Your task to perform on an android device: Do I have any events today? Image 0: 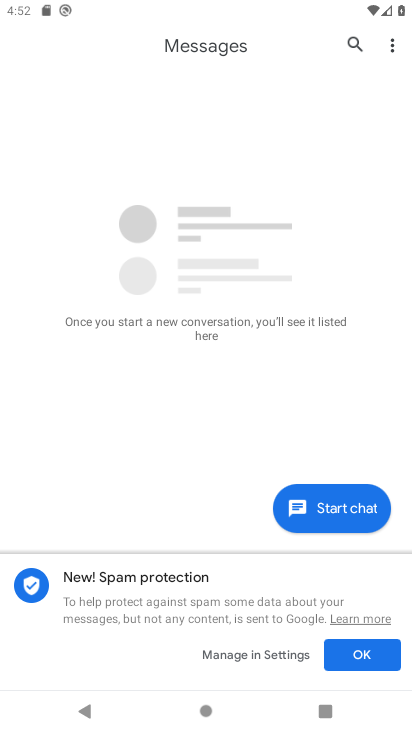
Step 0: press back button
Your task to perform on an android device: Do I have any events today? Image 1: 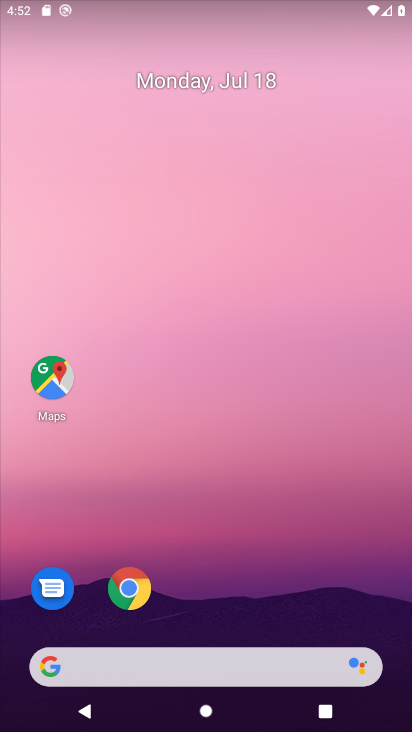
Step 1: drag from (284, 673) to (231, 0)
Your task to perform on an android device: Do I have any events today? Image 2: 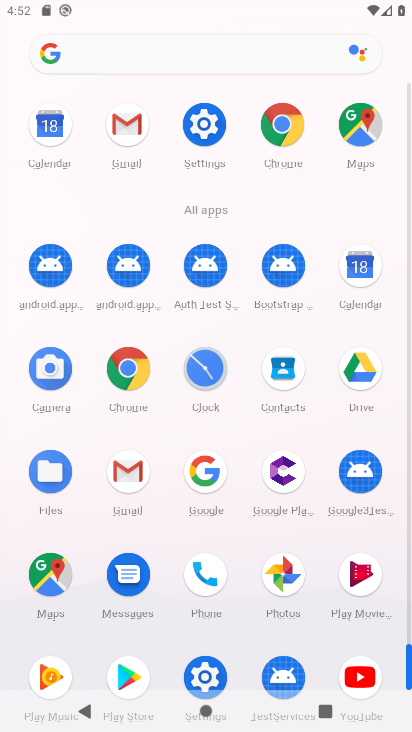
Step 2: click (364, 265)
Your task to perform on an android device: Do I have any events today? Image 3: 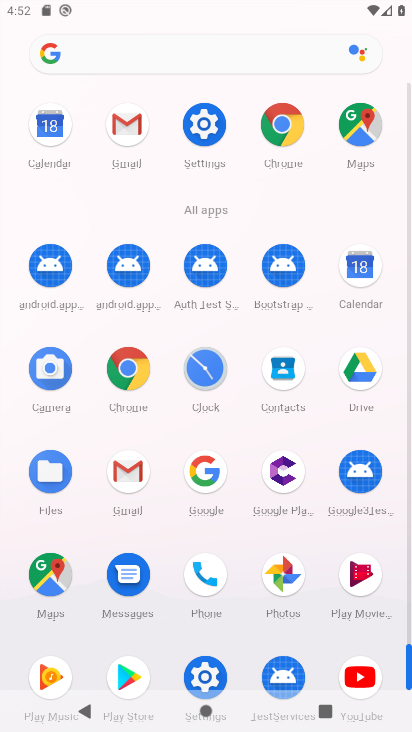
Step 3: click (364, 265)
Your task to perform on an android device: Do I have any events today? Image 4: 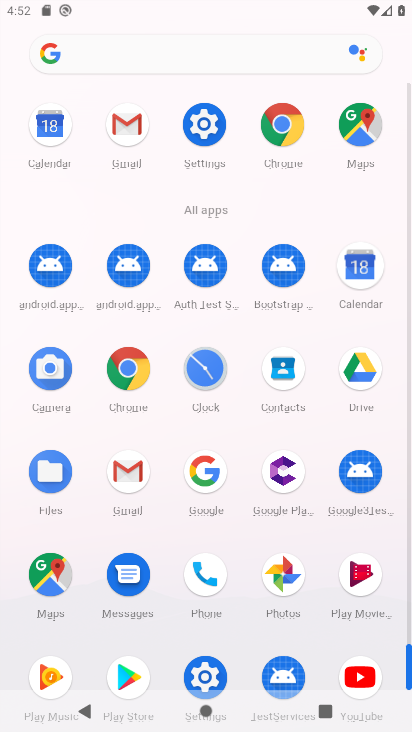
Step 4: click (368, 266)
Your task to perform on an android device: Do I have any events today? Image 5: 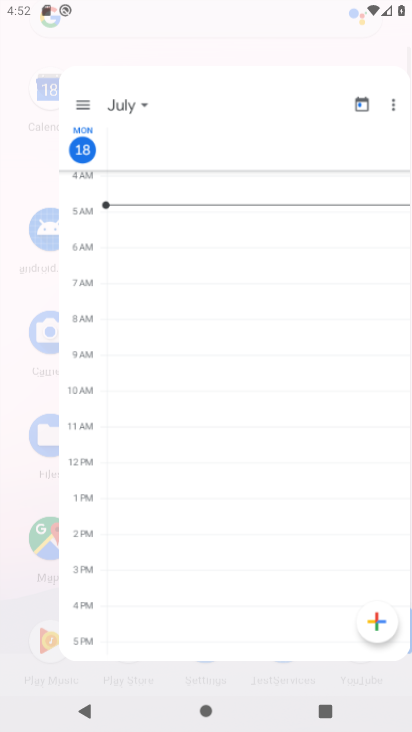
Step 5: click (368, 266)
Your task to perform on an android device: Do I have any events today? Image 6: 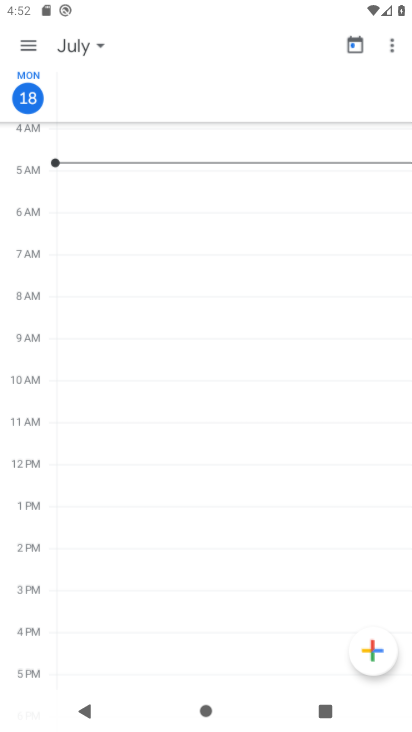
Step 6: click (367, 267)
Your task to perform on an android device: Do I have any events today? Image 7: 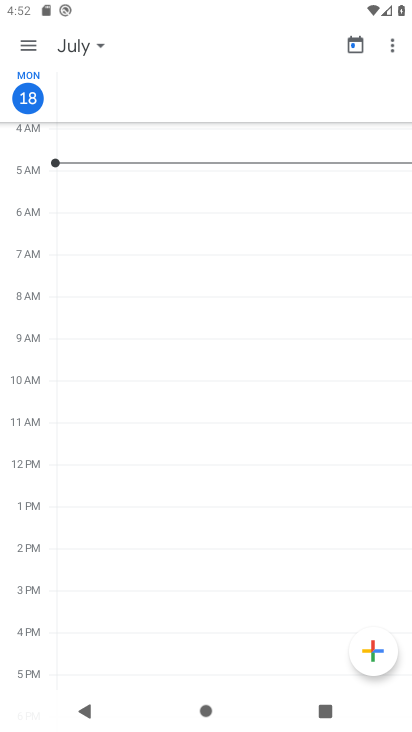
Step 7: click (358, 269)
Your task to perform on an android device: Do I have any events today? Image 8: 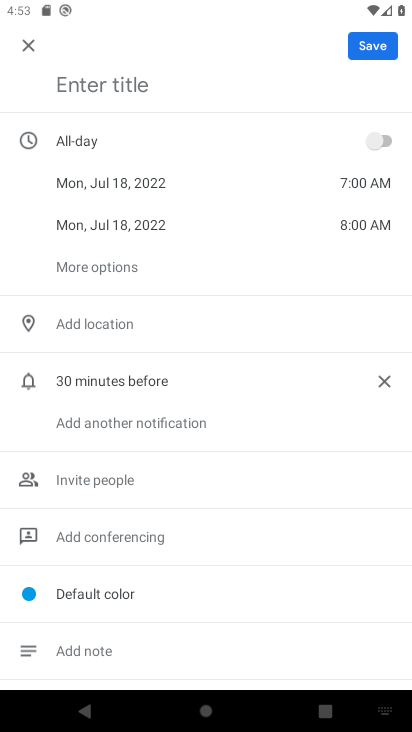
Step 8: click (18, 39)
Your task to perform on an android device: Do I have any events today? Image 9: 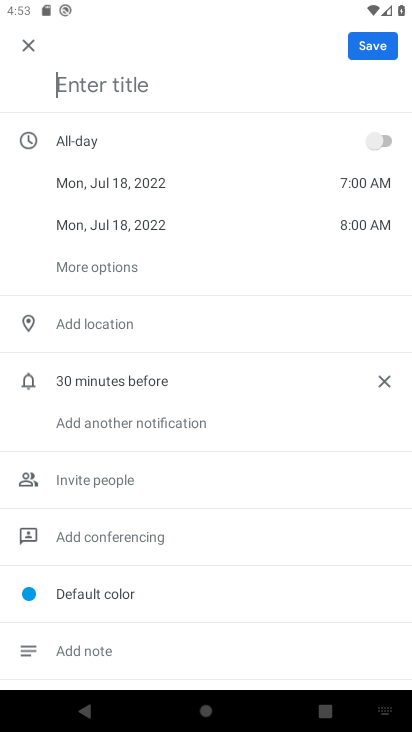
Step 9: click (21, 38)
Your task to perform on an android device: Do I have any events today? Image 10: 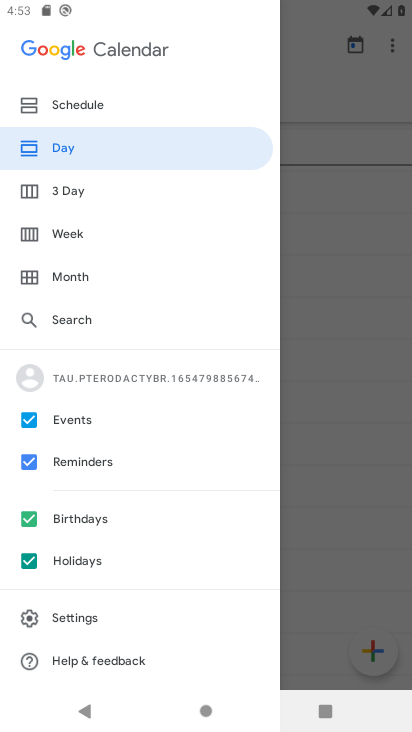
Step 10: click (83, 146)
Your task to perform on an android device: Do I have any events today? Image 11: 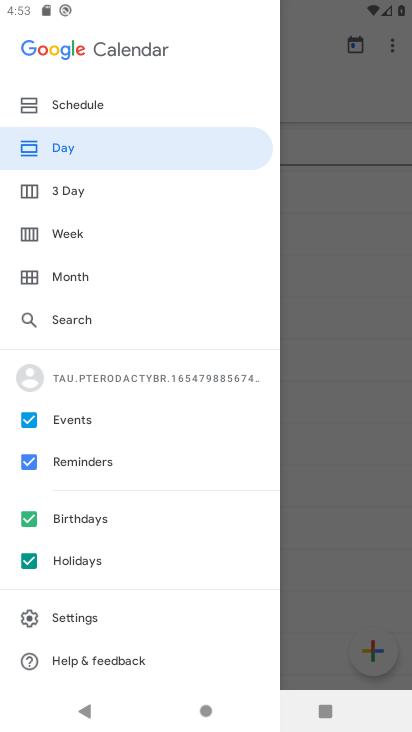
Step 11: click (83, 146)
Your task to perform on an android device: Do I have any events today? Image 12: 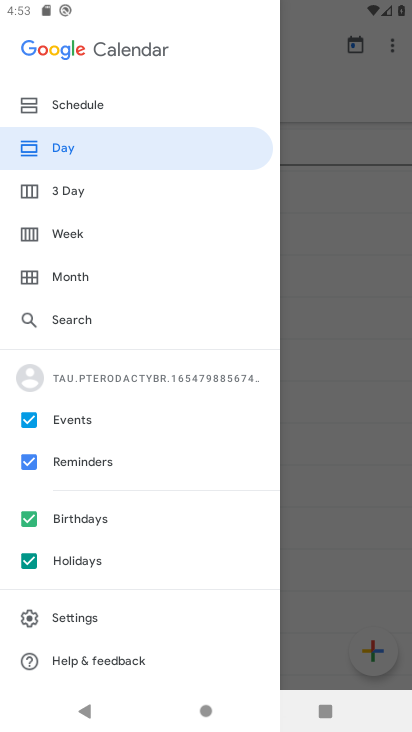
Step 12: click (94, 102)
Your task to perform on an android device: Do I have any events today? Image 13: 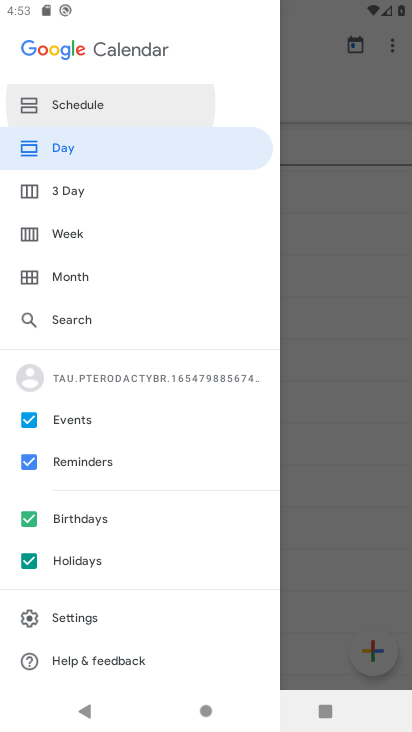
Step 13: click (94, 102)
Your task to perform on an android device: Do I have any events today? Image 14: 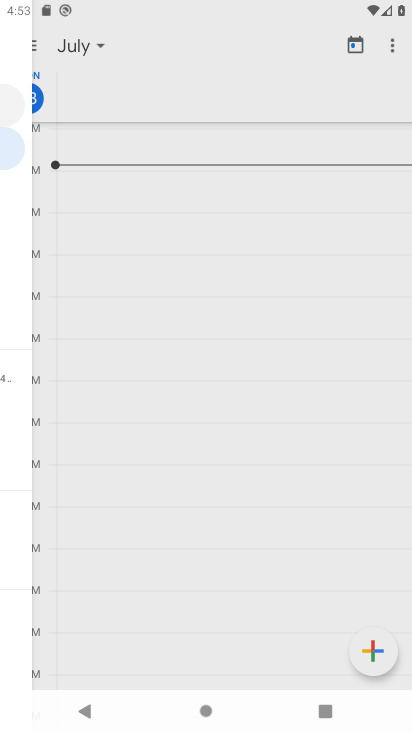
Step 14: click (94, 102)
Your task to perform on an android device: Do I have any events today? Image 15: 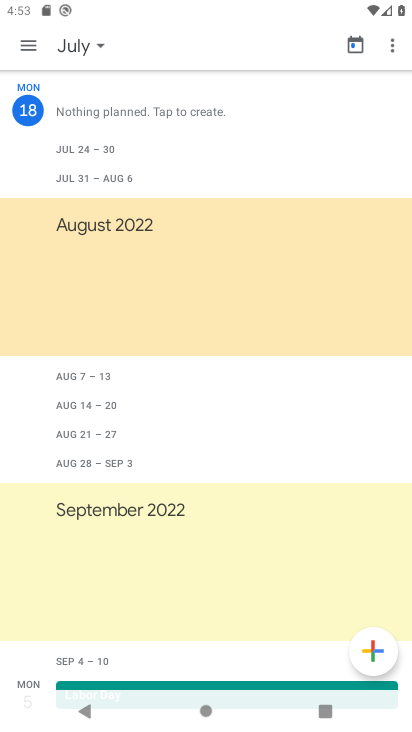
Step 15: drag from (100, 120) to (178, 426)
Your task to perform on an android device: Do I have any events today? Image 16: 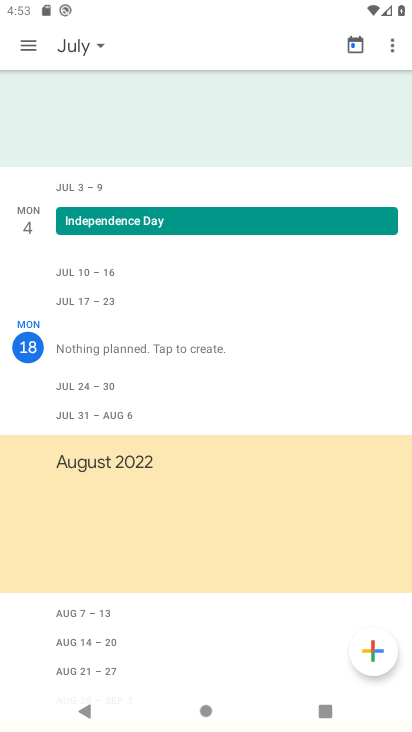
Step 16: drag from (109, 152) to (207, 560)
Your task to perform on an android device: Do I have any events today? Image 17: 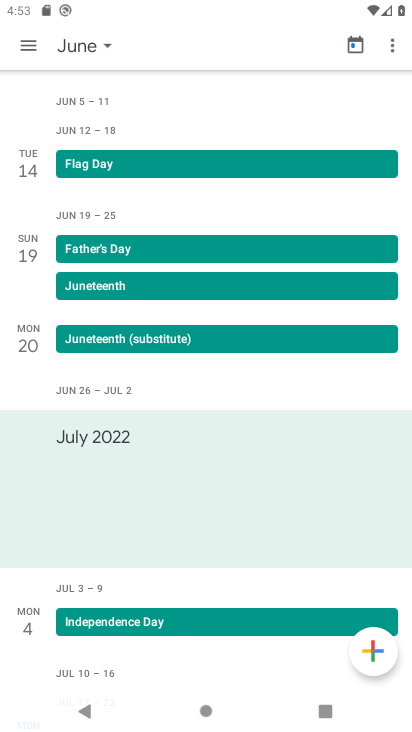
Step 17: drag from (119, 179) to (184, 524)
Your task to perform on an android device: Do I have any events today? Image 18: 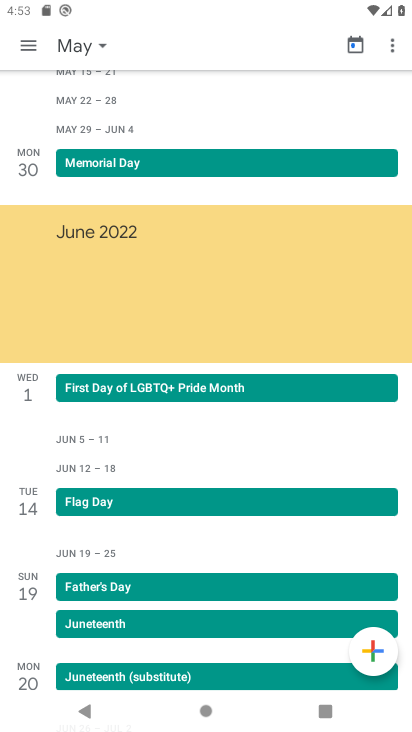
Step 18: drag from (118, 303) to (168, 487)
Your task to perform on an android device: Do I have any events today? Image 19: 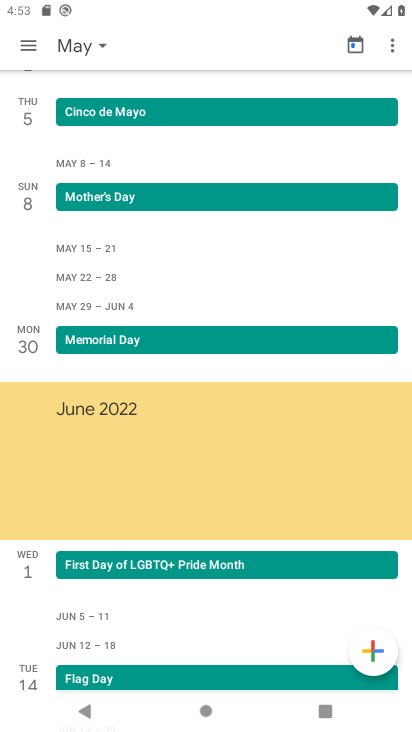
Step 19: drag from (74, 100) to (141, 397)
Your task to perform on an android device: Do I have any events today? Image 20: 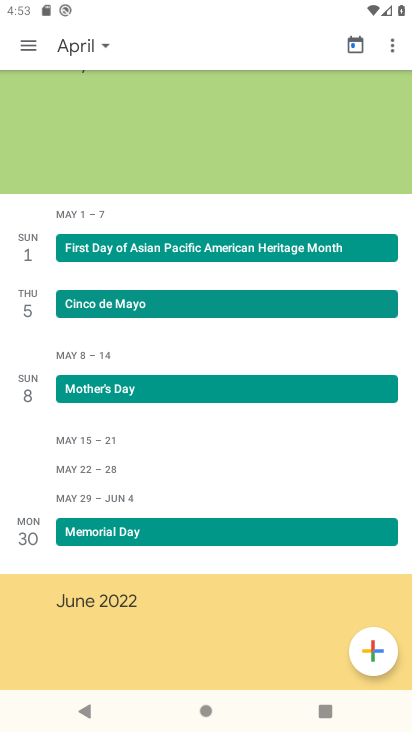
Step 20: drag from (114, 145) to (160, 551)
Your task to perform on an android device: Do I have any events today? Image 21: 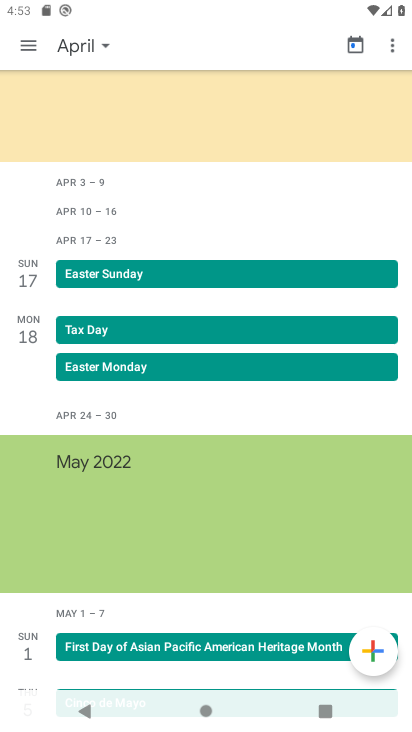
Step 21: drag from (87, 188) to (148, 550)
Your task to perform on an android device: Do I have any events today? Image 22: 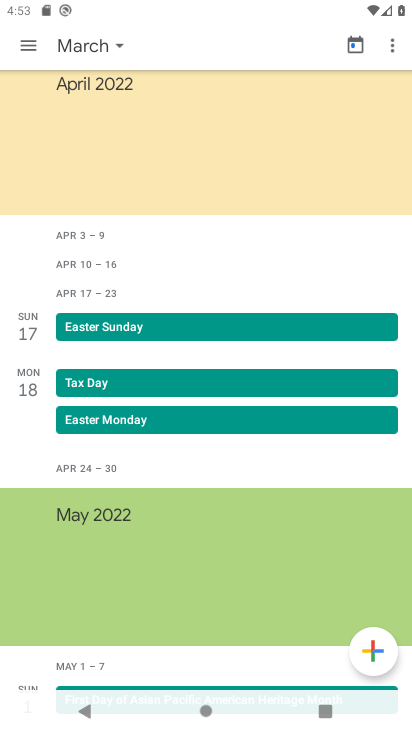
Step 22: drag from (83, 135) to (167, 577)
Your task to perform on an android device: Do I have any events today? Image 23: 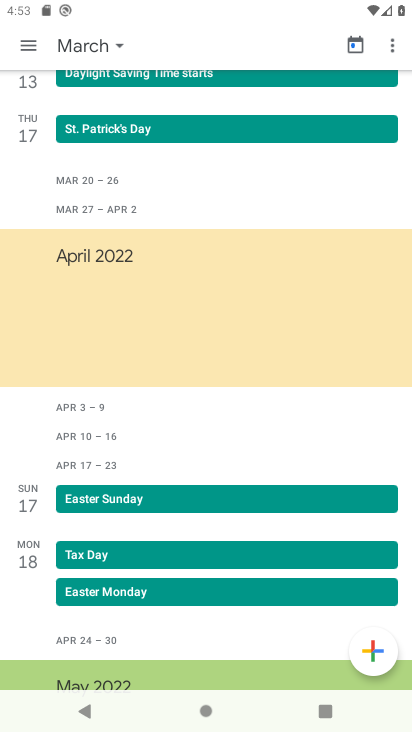
Step 23: drag from (131, 79) to (216, 608)
Your task to perform on an android device: Do I have any events today? Image 24: 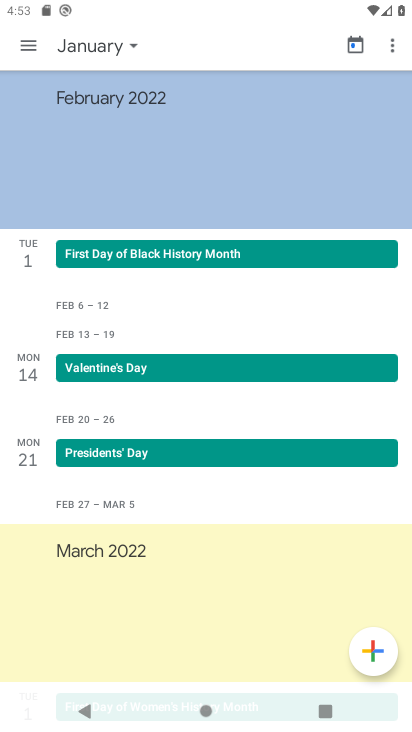
Step 24: drag from (126, 150) to (137, 679)
Your task to perform on an android device: Do I have any events today? Image 25: 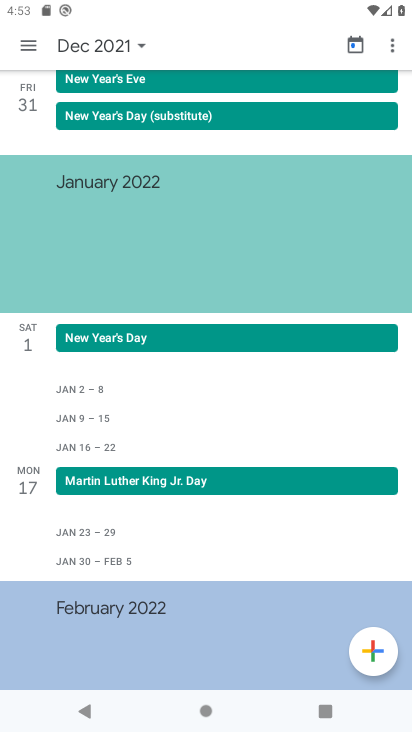
Step 25: drag from (62, 79) to (171, 592)
Your task to perform on an android device: Do I have any events today? Image 26: 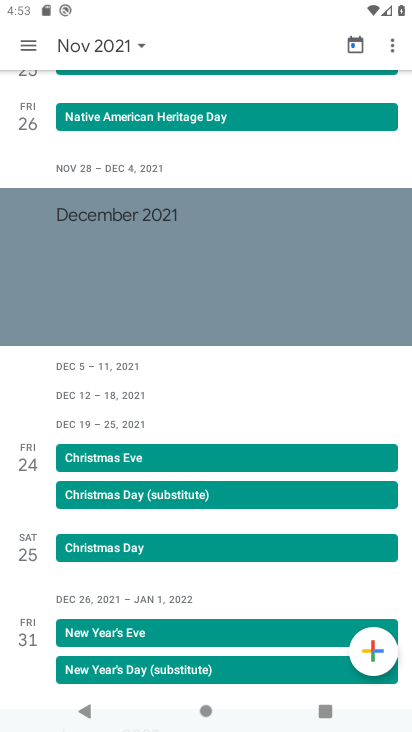
Step 26: drag from (83, 50) to (159, 443)
Your task to perform on an android device: Do I have any events today? Image 27: 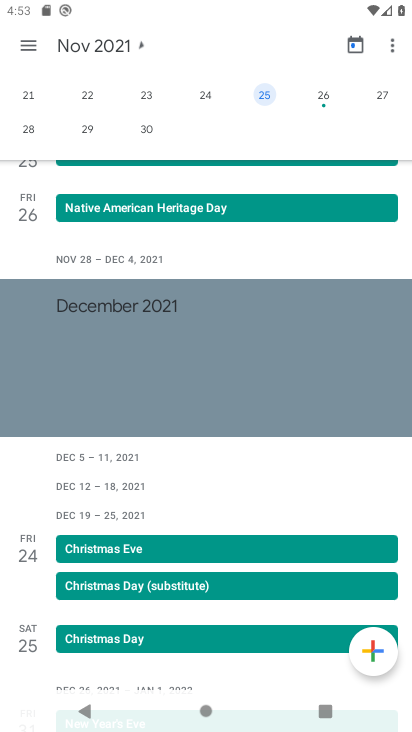
Step 27: drag from (81, 185) to (122, 577)
Your task to perform on an android device: Do I have any events today? Image 28: 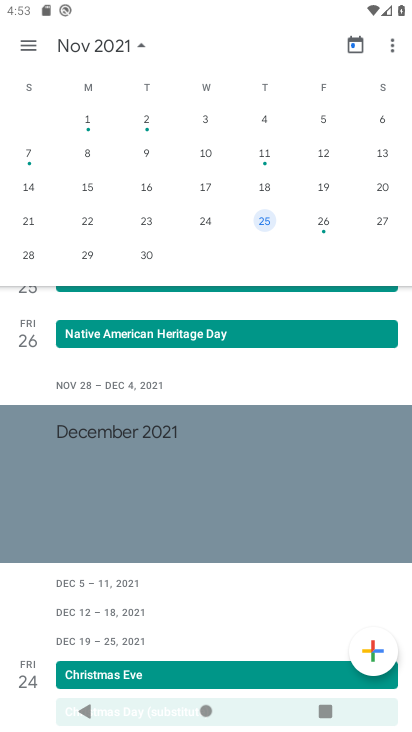
Step 28: drag from (53, 162) to (157, 544)
Your task to perform on an android device: Do I have any events today? Image 29: 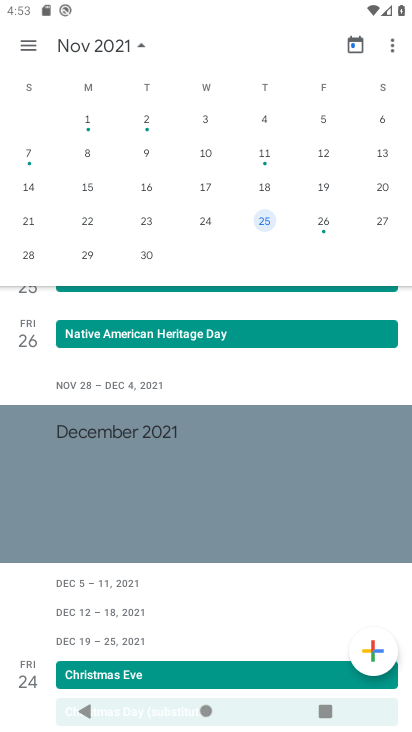
Step 29: drag from (190, 405) to (175, 27)
Your task to perform on an android device: Do I have any events today? Image 30: 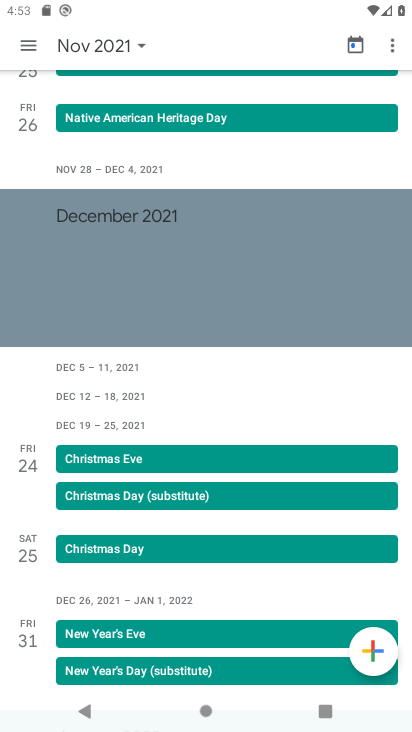
Step 30: drag from (253, 596) to (283, 106)
Your task to perform on an android device: Do I have any events today? Image 31: 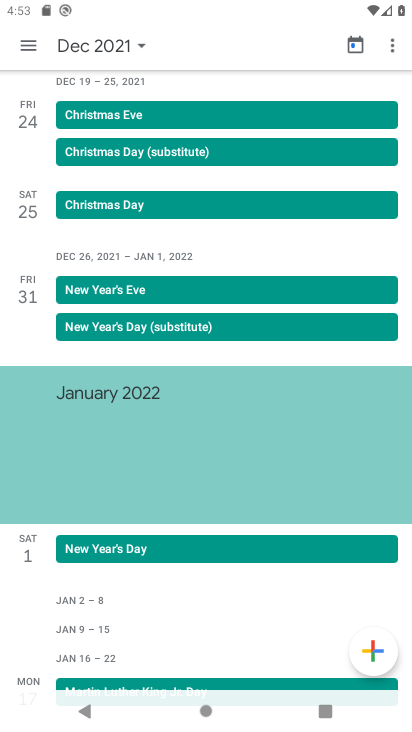
Step 31: drag from (226, 519) to (188, 137)
Your task to perform on an android device: Do I have any events today? Image 32: 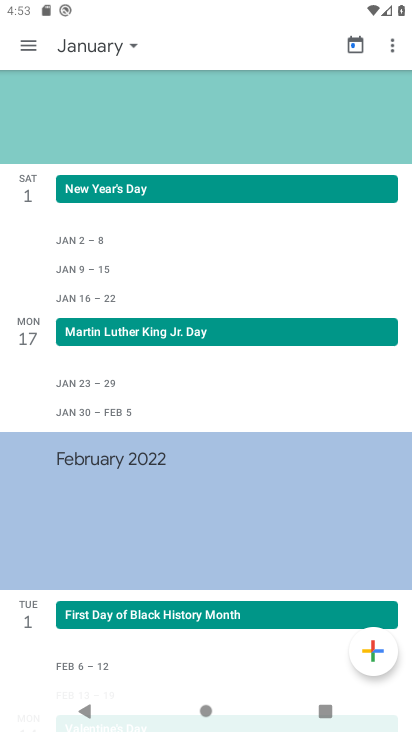
Step 32: drag from (175, 412) to (173, 214)
Your task to perform on an android device: Do I have any events today? Image 33: 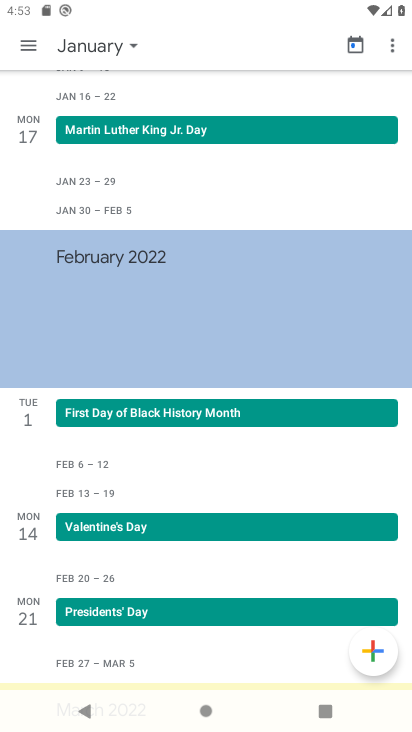
Step 33: drag from (177, 395) to (177, 138)
Your task to perform on an android device: Do I have any events today? Image 34: 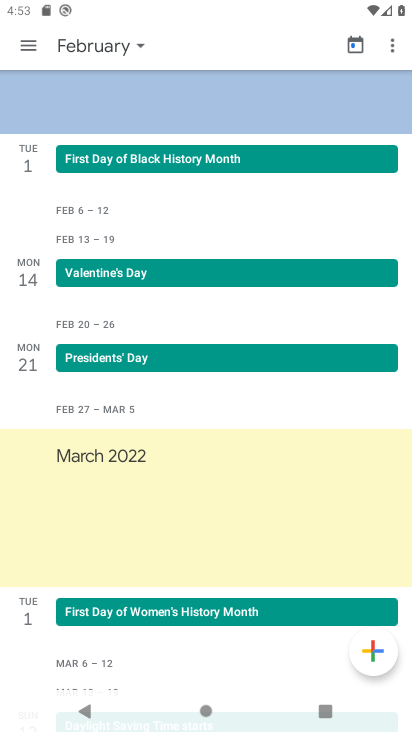
Step 34: drag from (176, 372) to (155, 90)
Your task to perform on an android device: Do I have any events today? Image 35: 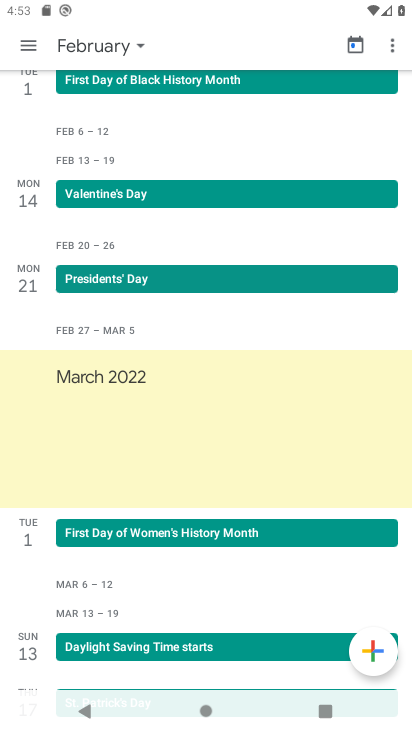
Step 35: drag from (148, 314) to (135, 81)
Your task to perform on an android device: Do I have any events today? Image 36: 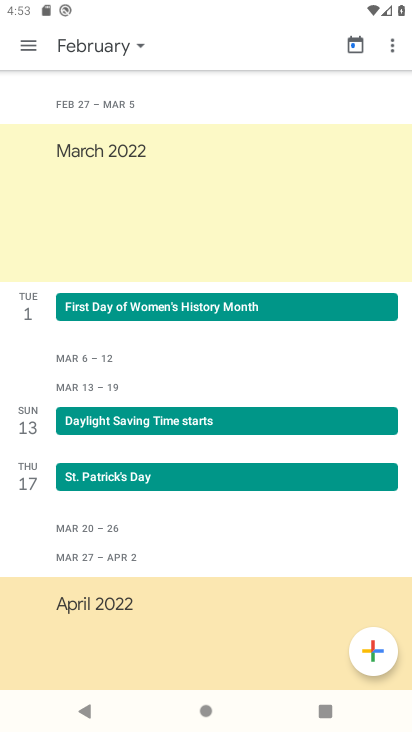
Step 36: drag from (172, 293) to (171, 88)
Your task to perform on an android device: Do I have any events today? Image 37: 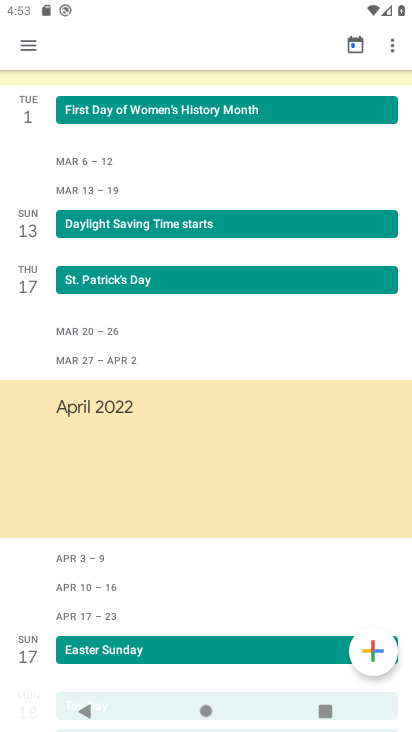
Step 37: drag from (171, 316) to (145, 81)
Your task to perform on an android device: Do I have any events today? Image 38: 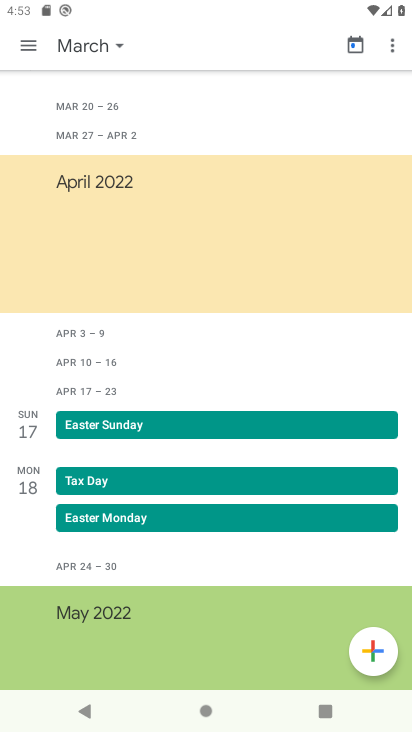
Step 38: drag from (177, 278) to (153, 93)
Your task to perform on an android device: Do I have any events today? Image 39: 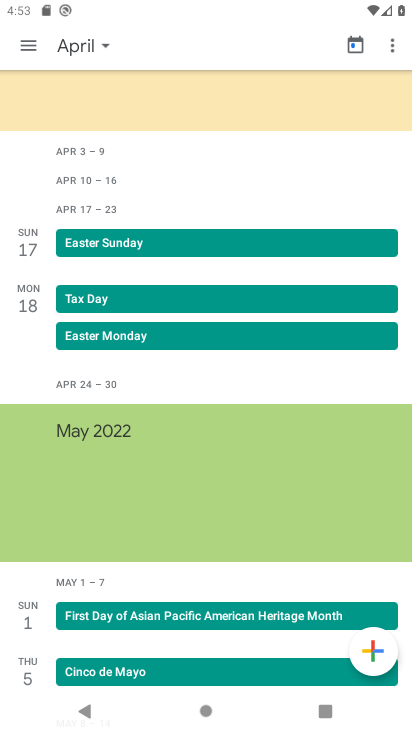
Step 39: drag from (177, 264) to (185, 72)
Your task to perform on an android device: Do I have any events today? Image 40: 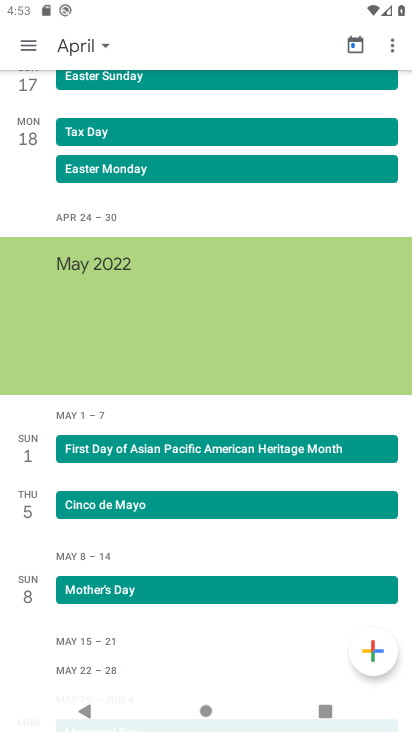
Step 40: drag from (204, 392) to (179, 137)
Your task to perform on an android device: Do I have any events today? Image 41: 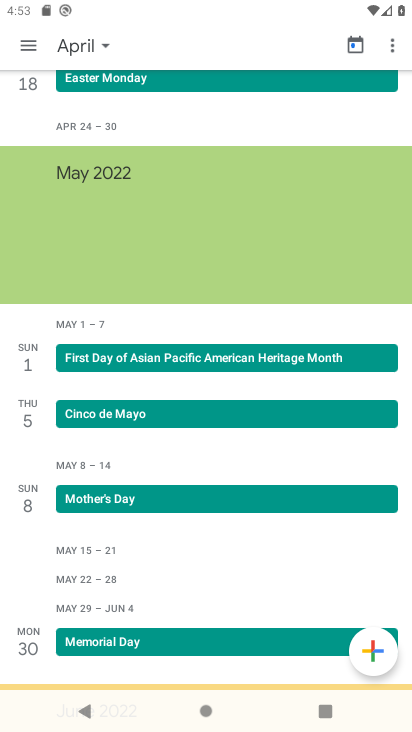
Step 41: drag from (192, 225) to (173, 88)
Your task to perform on an android device: Do I have any events today? Image 42: 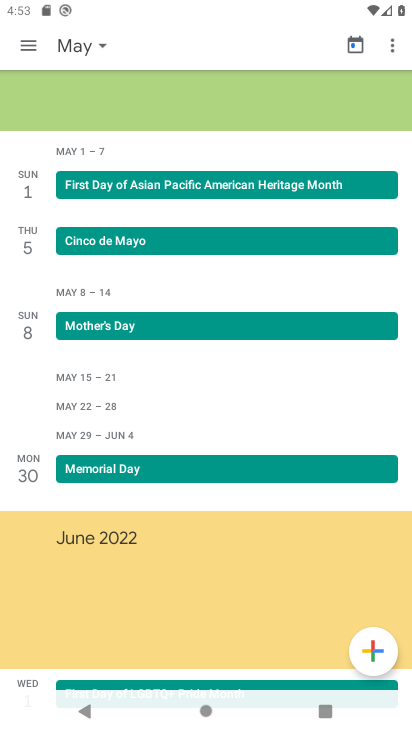
Step 42: drag from (160, 215) to (149, 133)
Your task to perform on an android device: Do I have any events today? Image 43: 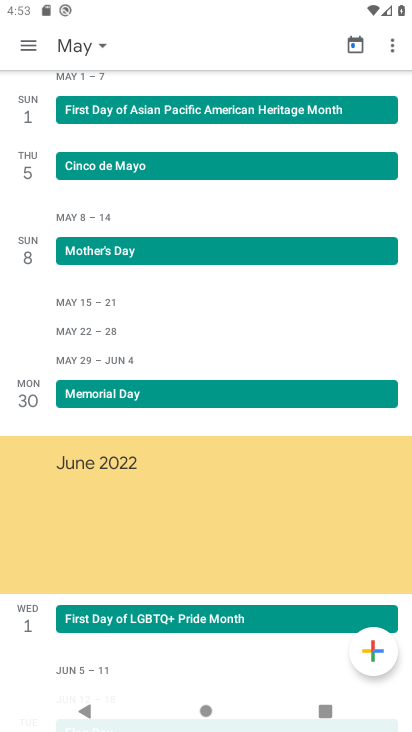
Step 43: drag from (152, 270) to (141, 100)
Your task to perform on an android device: Do I have any events today? Image 44: 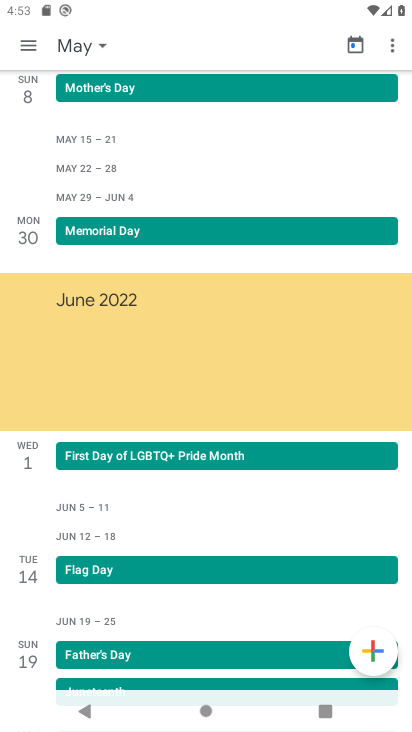
Step 44: drag from (162, 215) to (153, 108)
Your task to perform on an android device: Do I have any events today? Image 45: 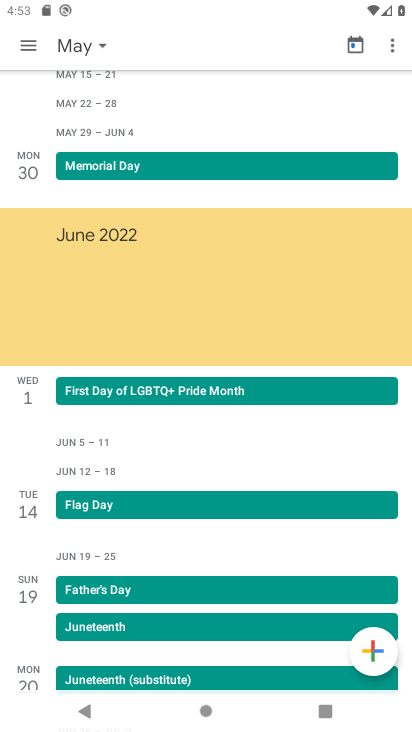
Step 45: drag from (166, 225) to (155, 92)
Your task to perform on an android device: Do I have any events today? Image 46: 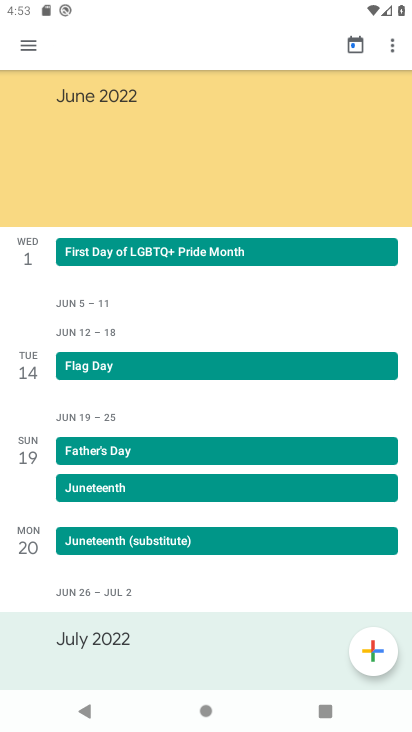
Step 46: drag from (155, 215) to (150, 121)
Your task to perform on an android device: Do I have any events today? Image 47: 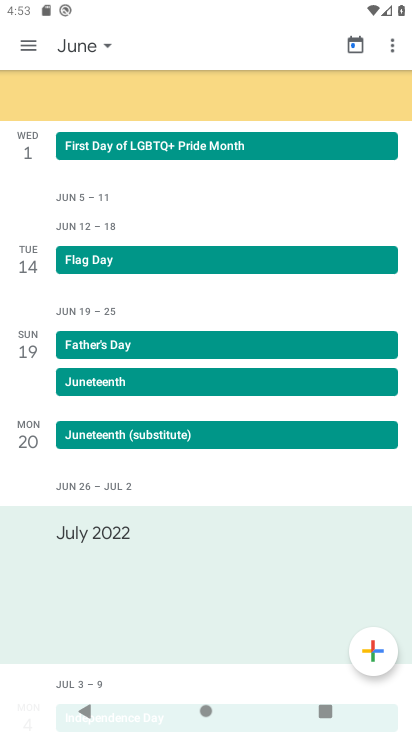
Step 47: drag from (162, 203) to (163, 128)
Your task to perform on an android device: Do I have any events today? Image 48: 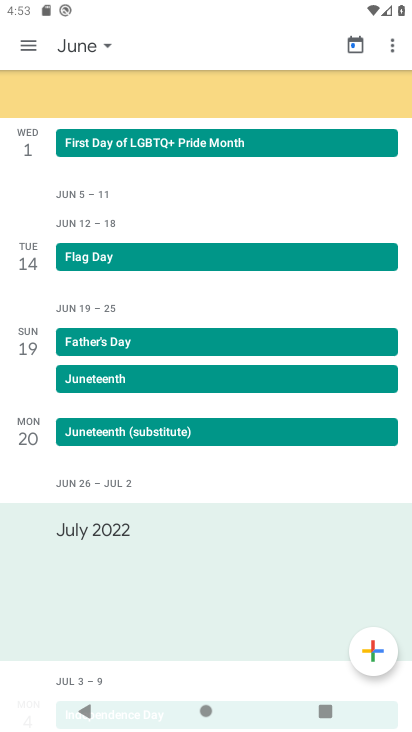
Step 48: drag from (168, 251) to (168, 154)
Your task to perform on an android device: Do I have any events today? Image 49: 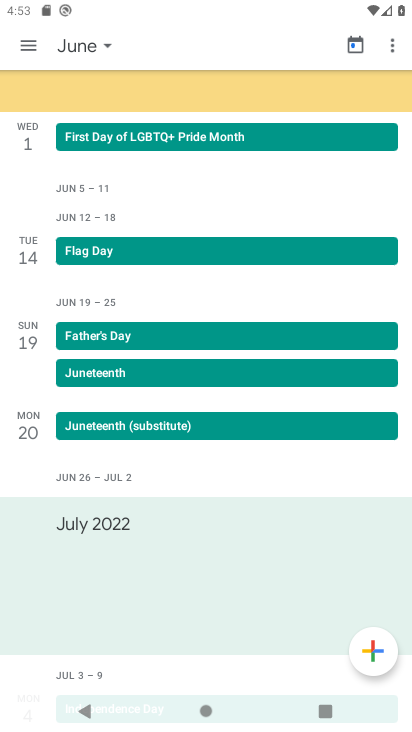
Step 49: drag from (226, 399) to (226, 80)
Your task to perform on an android device: Do I have any events today? Image 50: 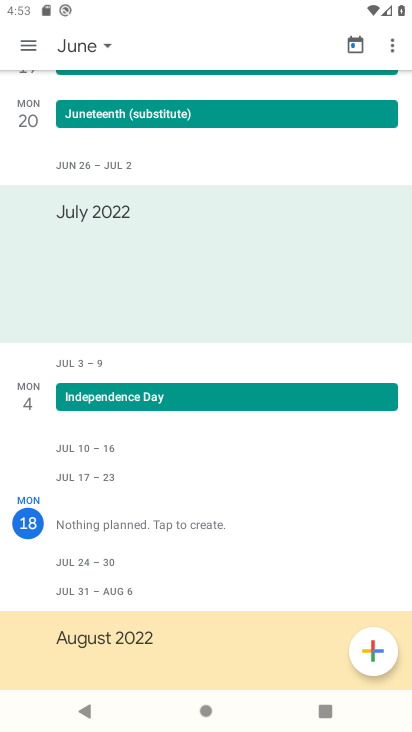
Step 50: drag from (237, 298) to (237, 257)
Your task to perform on an android device: Do I have any events today? Image 51: 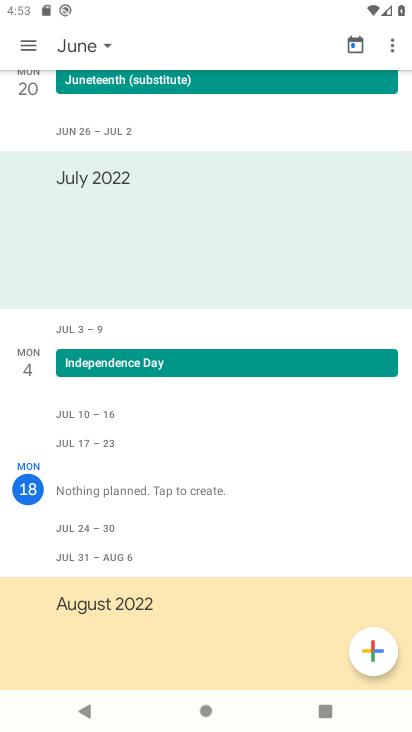
Step 51: drag from (223, 366) to (220, 255)
Your task to perform on an android device: Do I have any events today? Image 52: 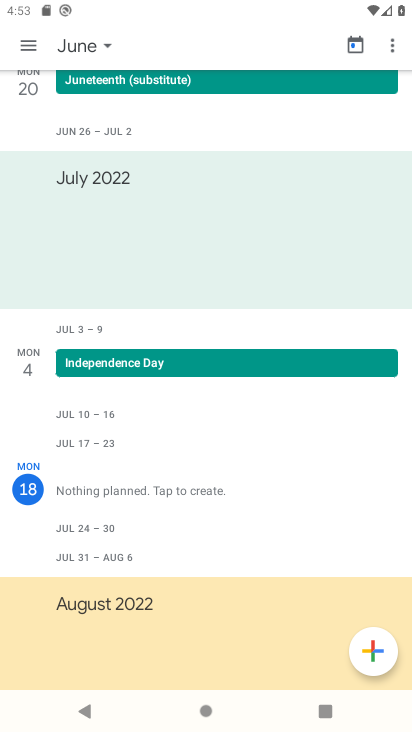
Step 52: click (197, 275)
Your task to perform on an android device: Do I have any events today? Image 53: 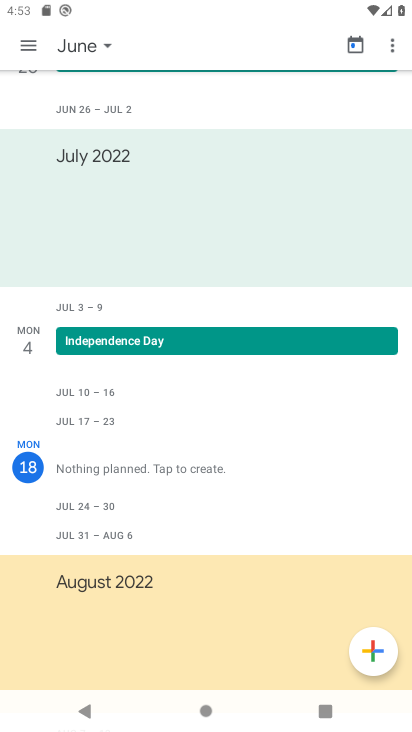
Step 53: drag from (157, 315) to (167, 78)
Your task to perform on an android device: Do I have any events today? Image 54: 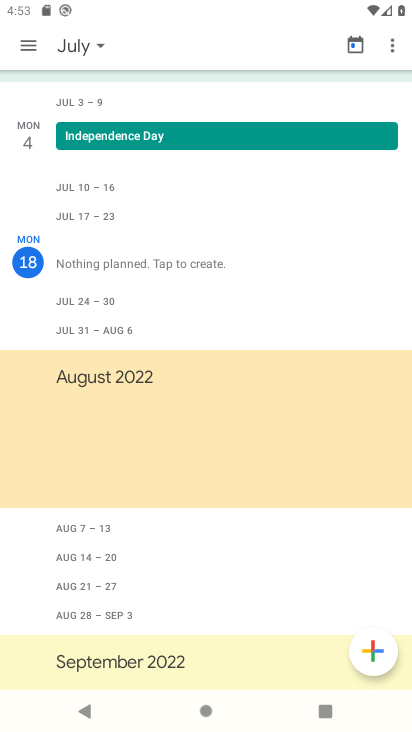
Step 54: drag from (128, 149) to (203, 425)
Your task to perform on an android device: Do I have any events today? Image 55: 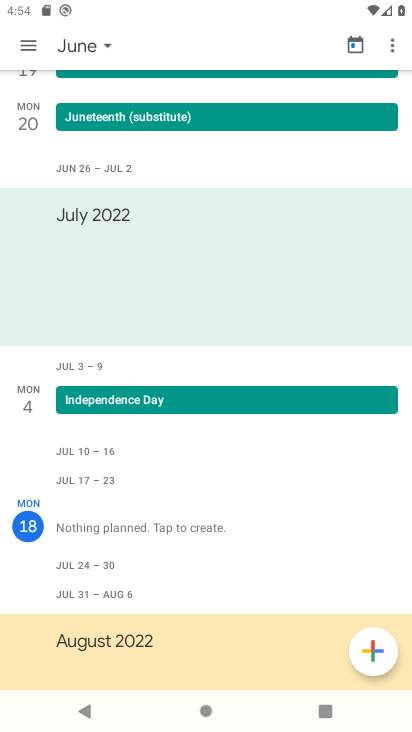
Step 55: click (106, 236)
Your task to perform on an android device: Do I have any events today? Image 56: 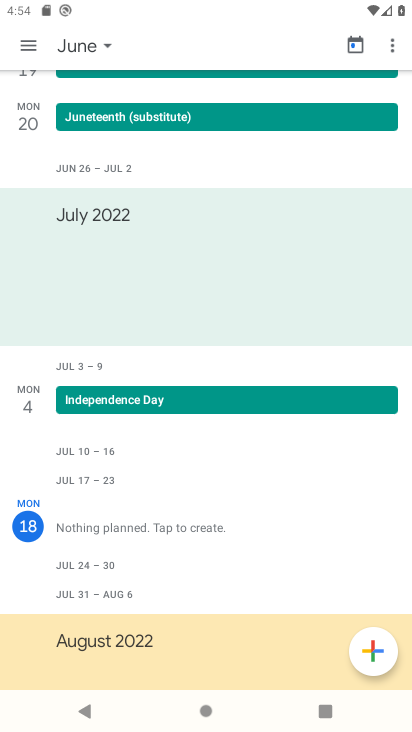
Step 56: click (109, 235)
Your task to perform on an android device: Do I have any events today? Image 57: 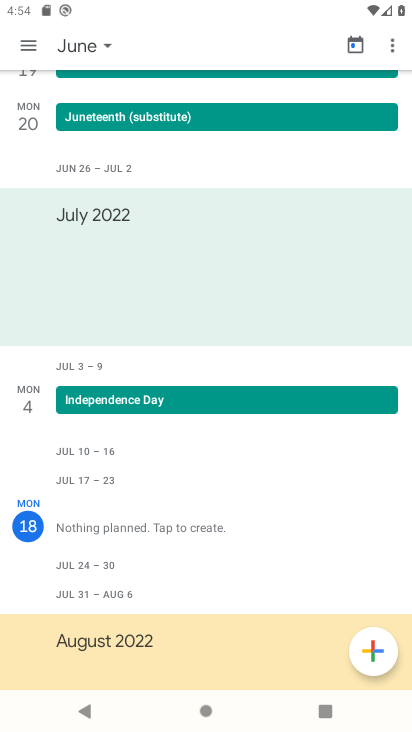
Step 57: click (111, 237)
Your task to perform on an android device: Do I have any events today? Image 58: 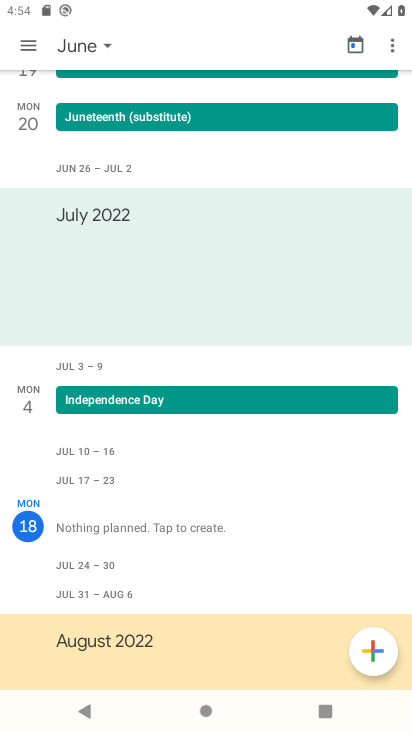
Step 58: drag from (128, 486) to (132, 238)
Your task to perform on an android device: Do I have any events today? Image 59: 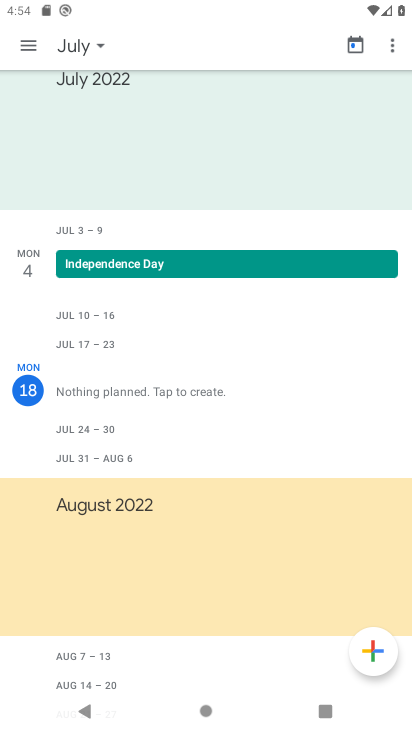
Step 59: drag from (145, 508) to (144, 322)
Your task to perform on an android device: Do I have any events today? Image 60: 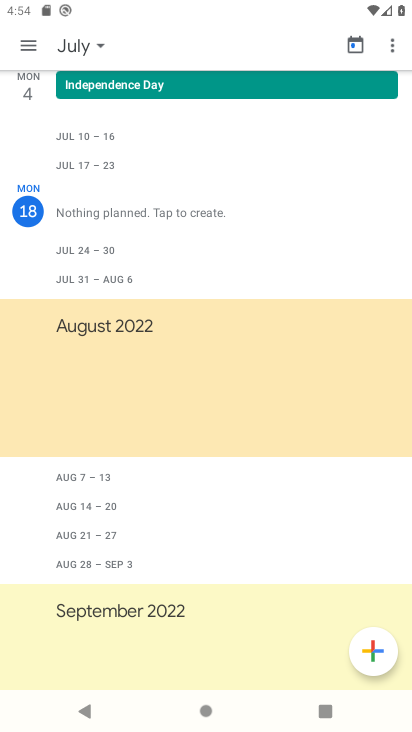
Step 60: click (101, 38)
Your task to perform on an android device: Do I have any events today? Image 61: 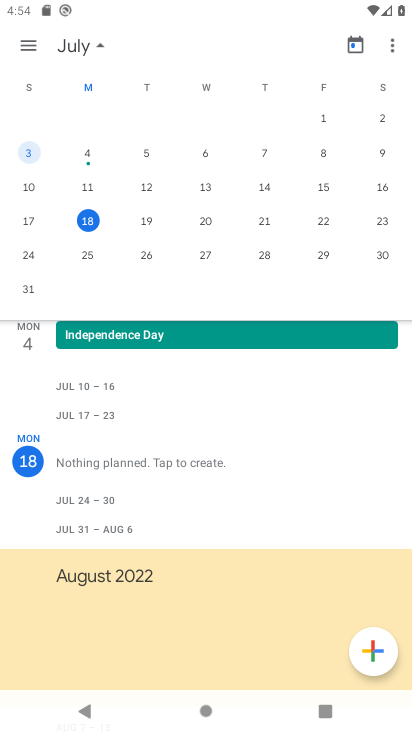
Step 61: task complete